Your task to perform on an android device: What's the weather going to be this weekend? Image 0: 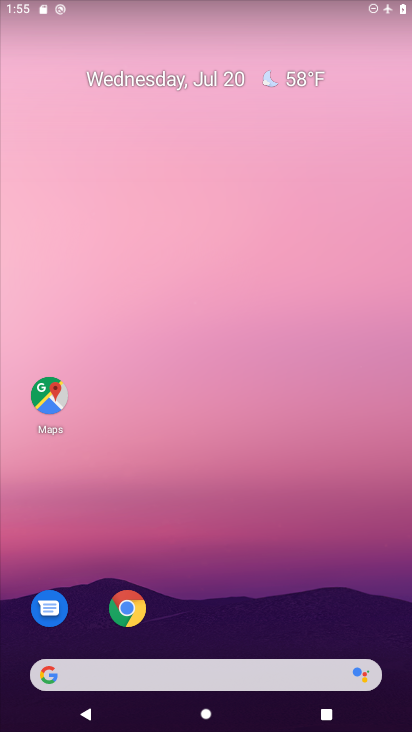
Step 0: click (267, 78)
Your task to perform on an android device: What's the weather going to be this weekend? Image 1: 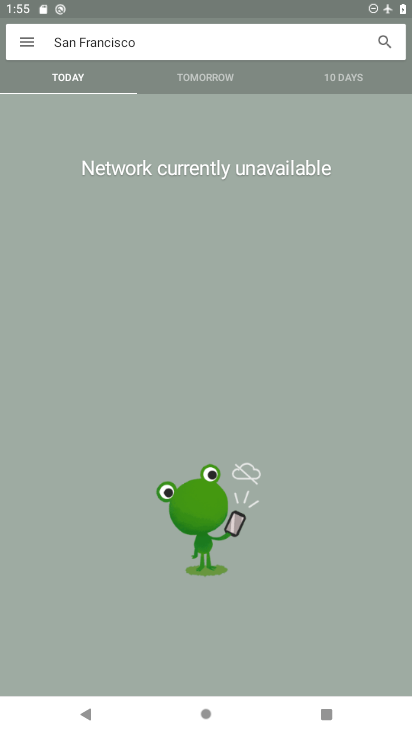
Step 1: task complete